Your task to perform on an android device: open app "Indeed Job Search" Image 0: 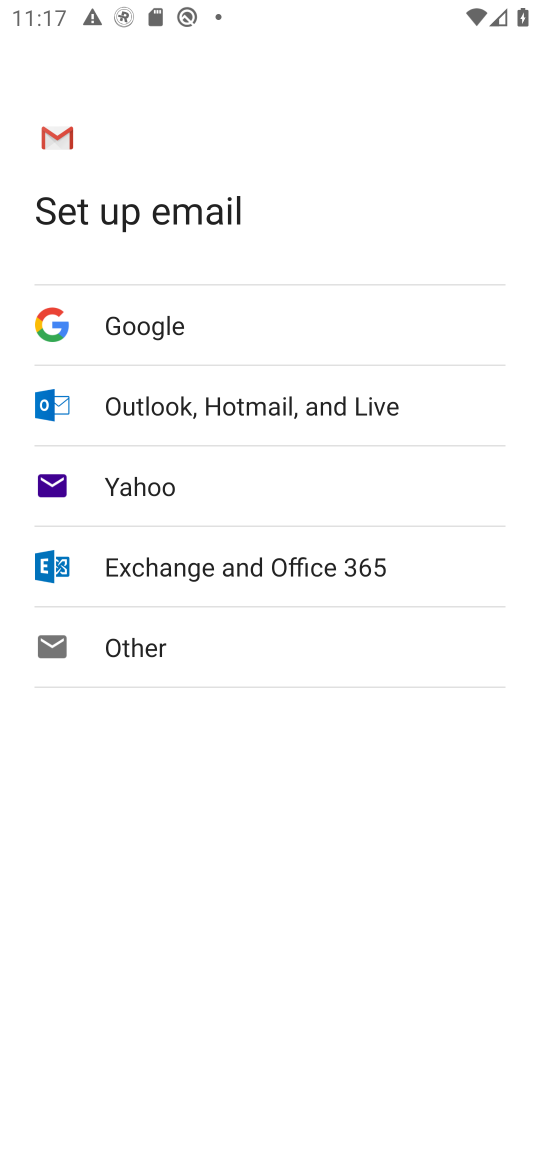
Step 0: press home button
Your task to perform on an android device: open app "Indeed Job Search" Image 1: 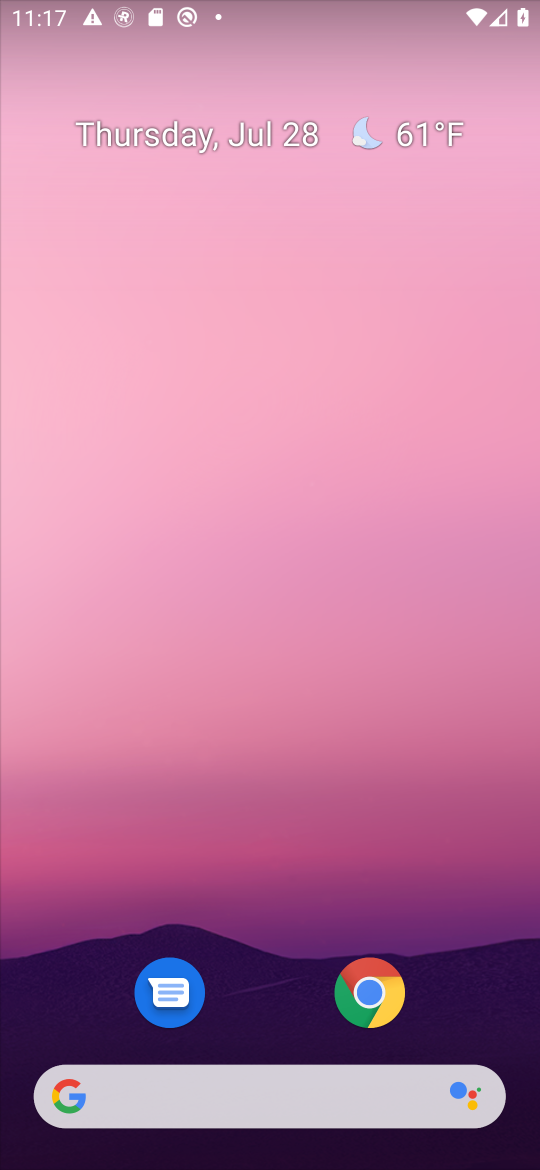
Step 1: drag from (221, 1076) to (310, 199)
Your task to perform on an android device: open app "Indeed Job Search" Image 2: 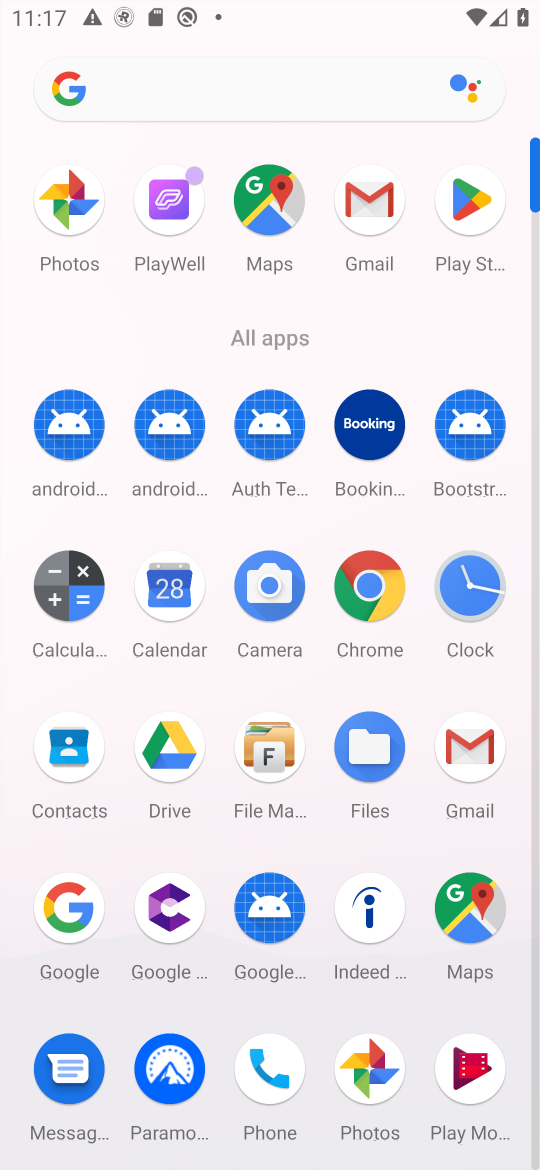
Step 2: drag from (218, 988) to (236, 665)
Your task to perform on an android device: open app "Indeed Job Search" Image 3: 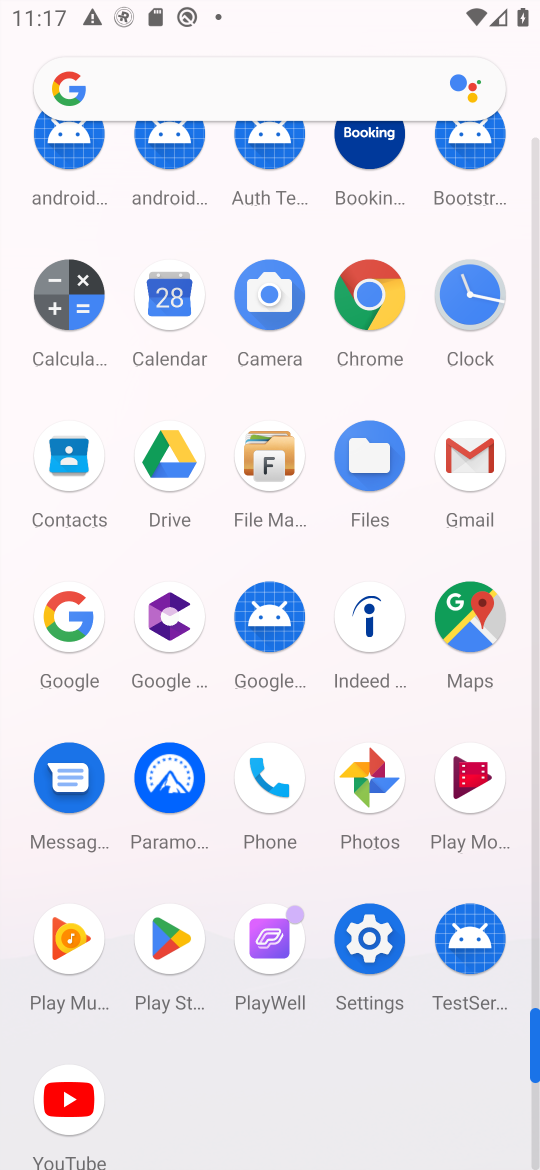
Step 3: click (161, 941)
Your task to perform on an android device: open app "Indeed Job Search" Image 4: 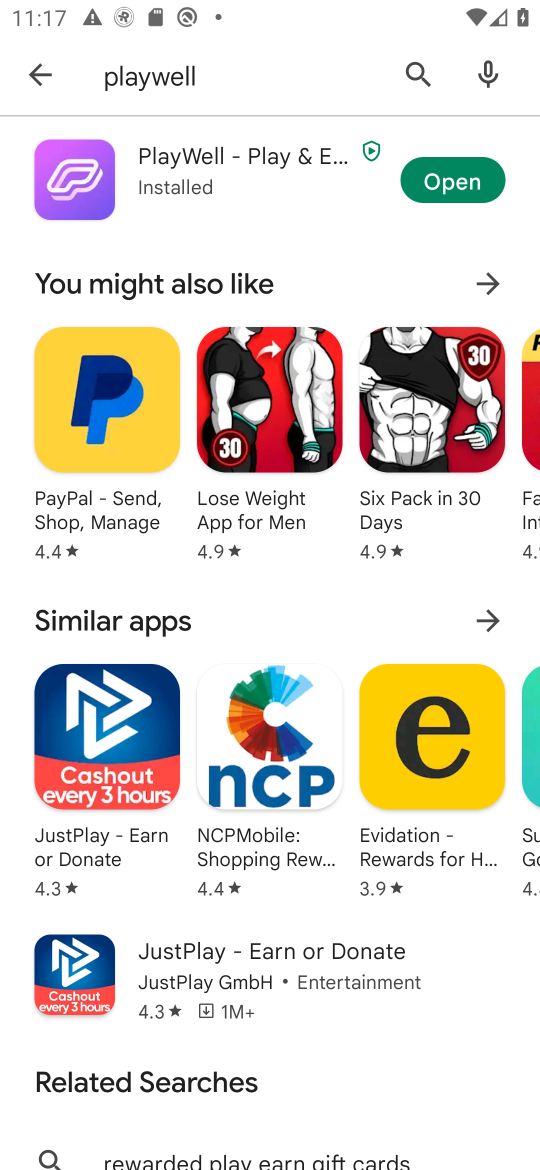
Step 4: click (413, 73)
Your task to perform on an android device: open app "Indeed Job Search" Image 5: 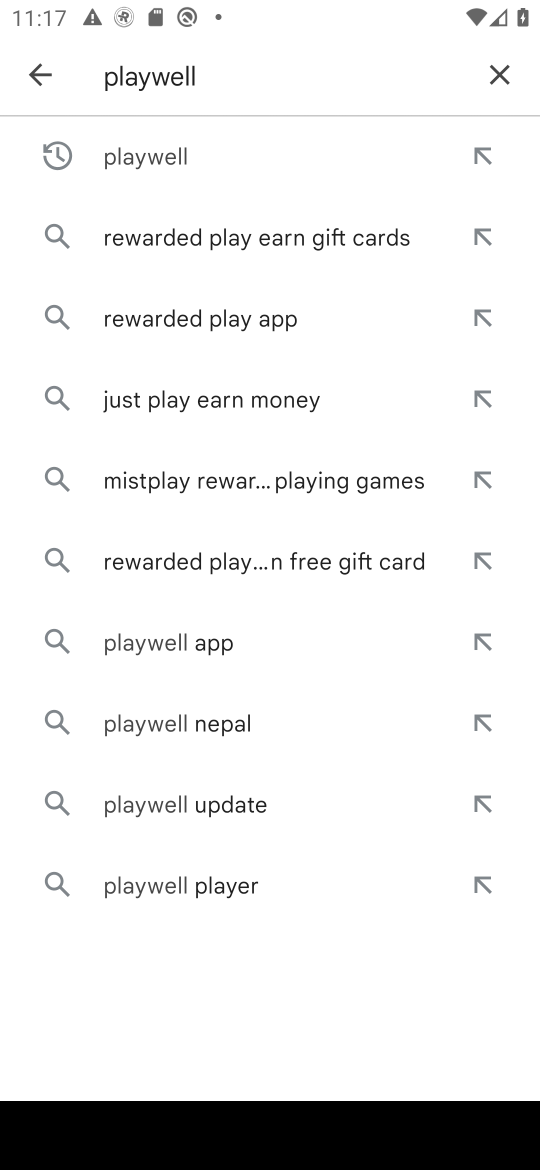
Step 5: click (501, 77)
Your task to perform on an android device: open app "Indeed Job Search" Image 6: 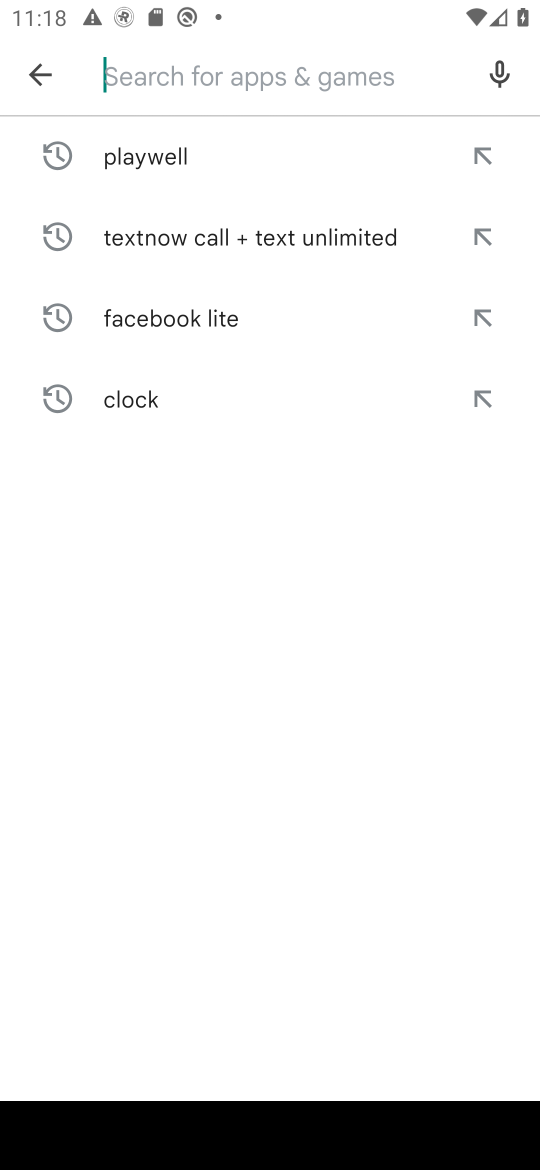
Step 6: type "Indeed Job Search"
Your task to perform on an android device: open app "Indeed Job Search" Image 7: 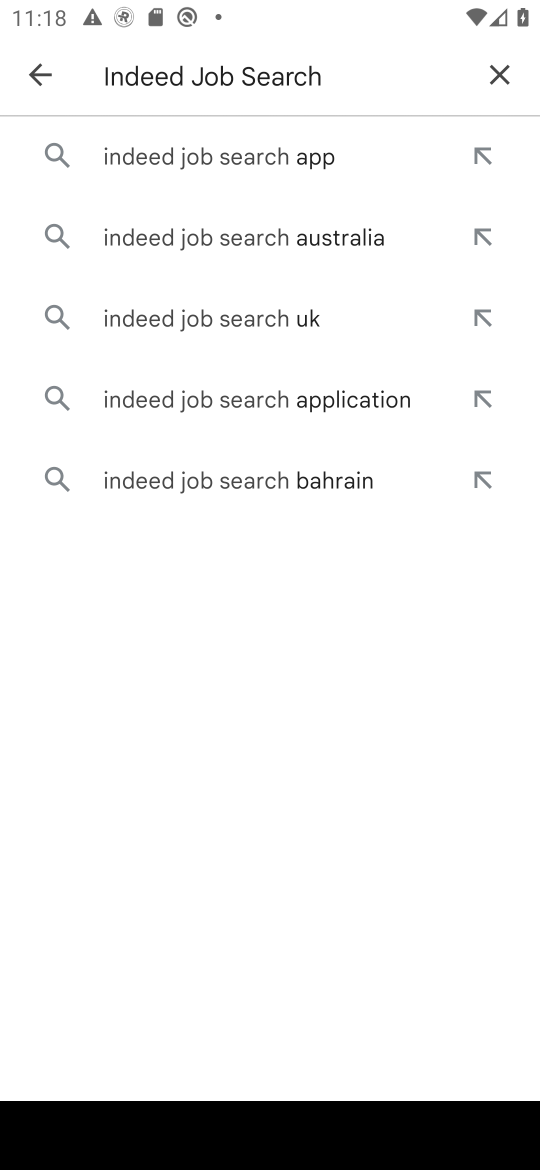
Step 7: click (282, 170)
Your task to perform on an android device: open app "Indeed Job Search" Image 8: 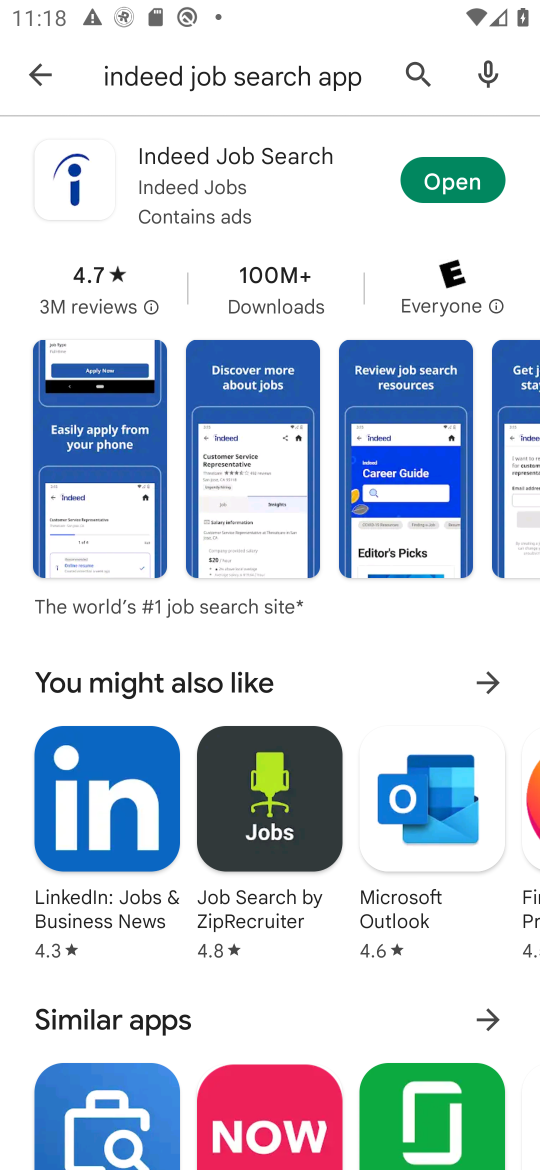
Step 8: click (439, 184)
Your task to perform on an android device: open app "Indeed Job Search" Image 9: 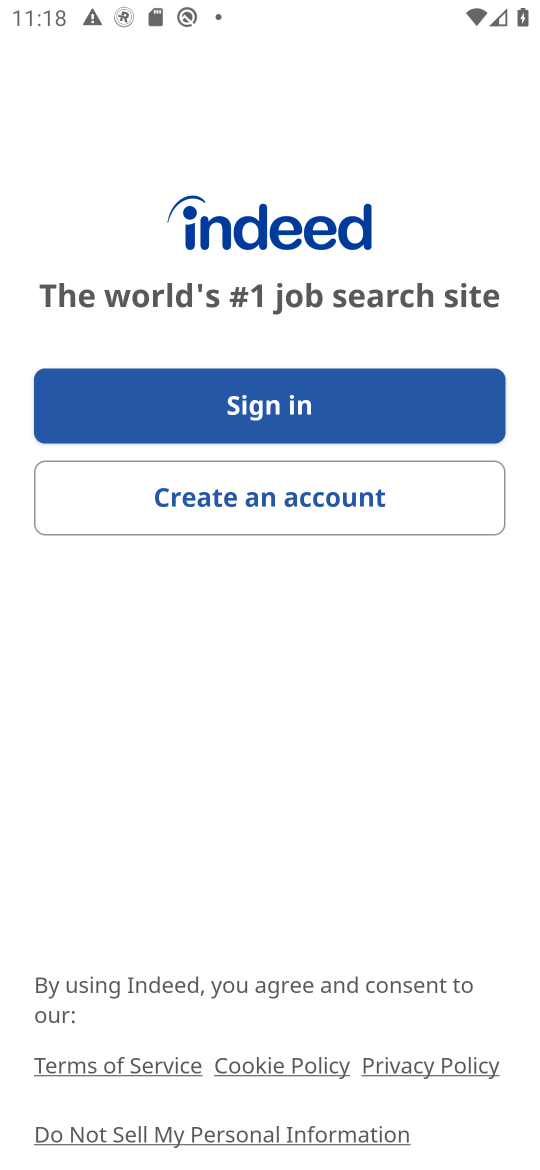
Step 9: task complete